Your task to perform on an android device: turn notification dots on Image 0: 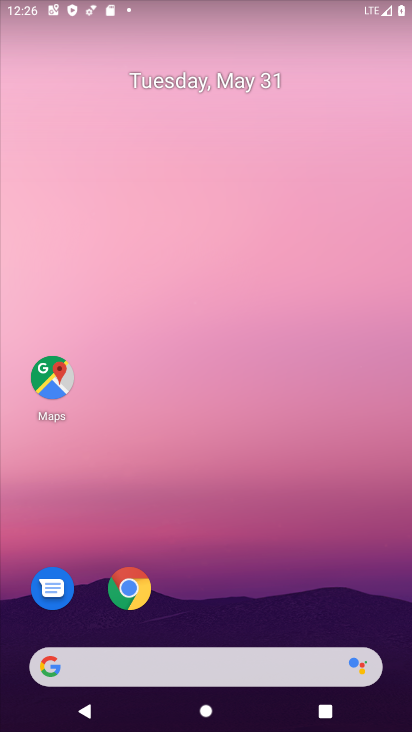
Step 0: drag from (233, 628) to (234, 117)
Your task to perform on an android device: turn notification dots on Image 1: 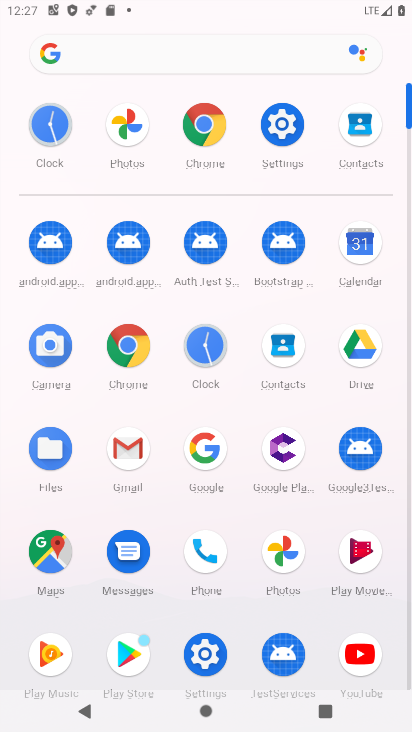
Step 1: click (280, 127)
Your task to perform on an android device: turn notification dots on Image 2: 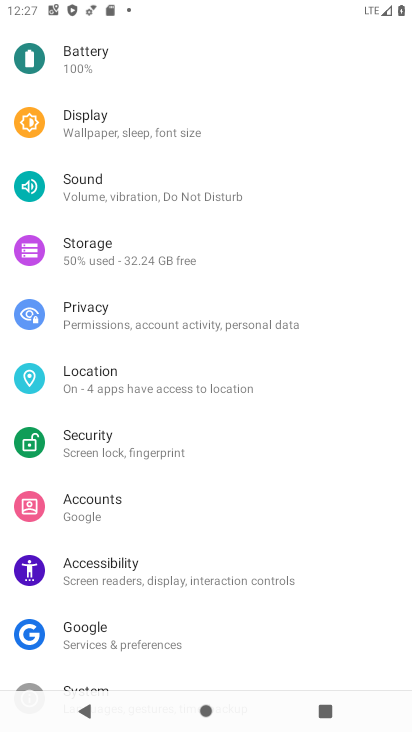
Step 2: drag from (121, 104) to (146, 665)
Your task to perform on an android device: turn notification dots on Image 3: 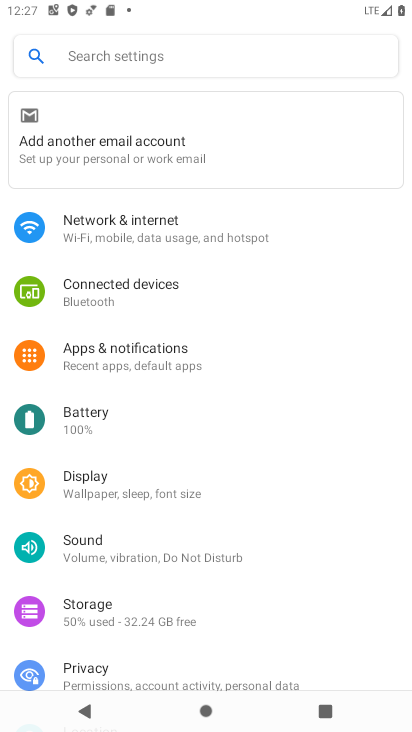
Step 3: click (156, 377)
Your task to perform on an android device: turn notification dots on Image 4: 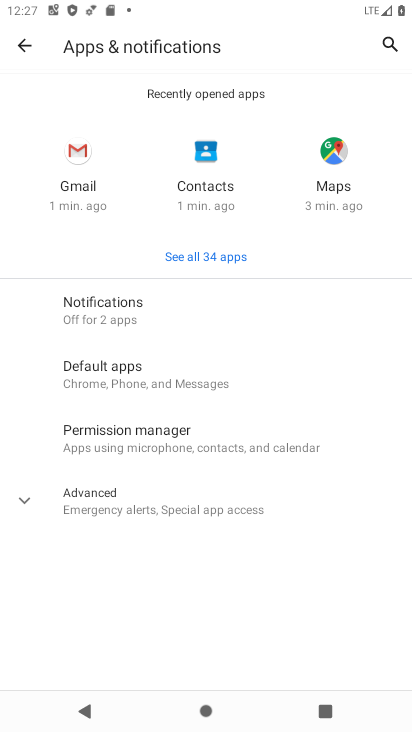
Step 4: click (151, 301)
Your task to perform on an android device: turn notification dots on Image 5: 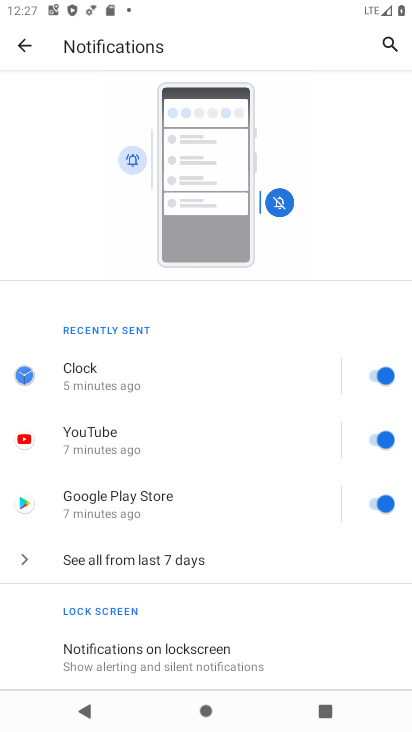
Step 5: drag from (244, 607) to (274, 238)
Your task to perform on an android device: turn notification dots on Image 6: 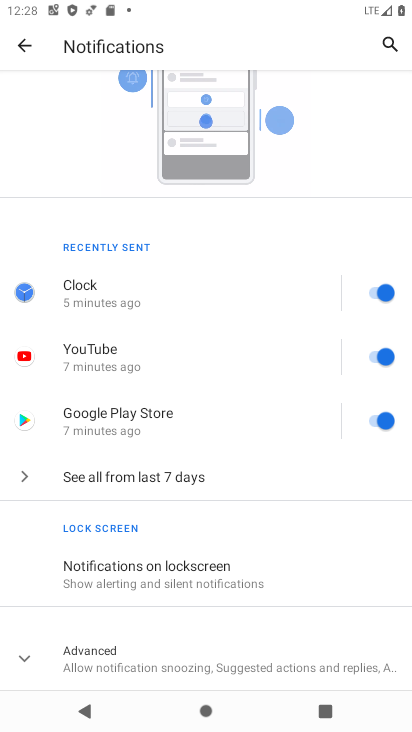
Step 6: click (158, 663)
Your task to perform on an android device: turn notification dots on Image 7: 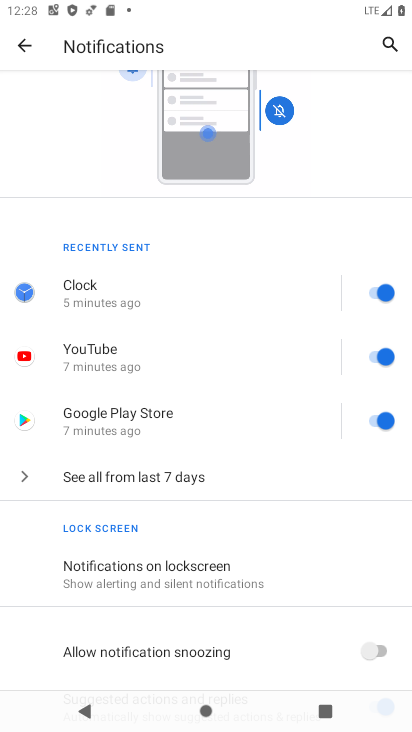
Step 7: task complete